Your task to perform on an android device: turn off improve location accuracy Image 0: 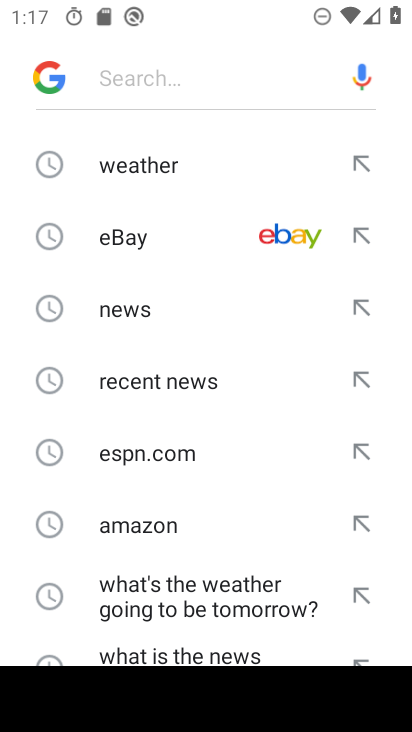
Step 0: press home button
Your task to perform on an android device: turn off improve location accuracy Image 1: 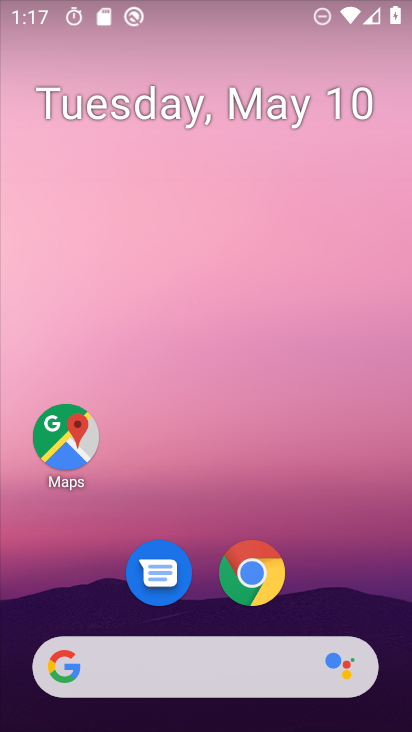
Step 1: drag from (357, 549) to (176, 16)
Your task to perform on an android device: turn off improve location accuracy Image 2: 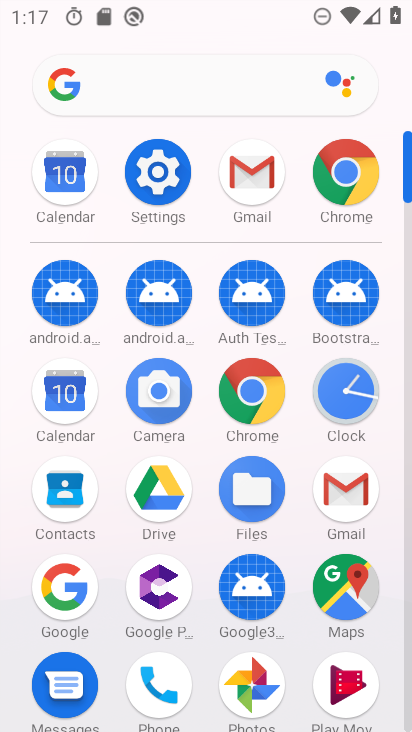
Step 2: click (155, 144)
Your task to perform on an android device: turn off improve location accuracy Image 3: 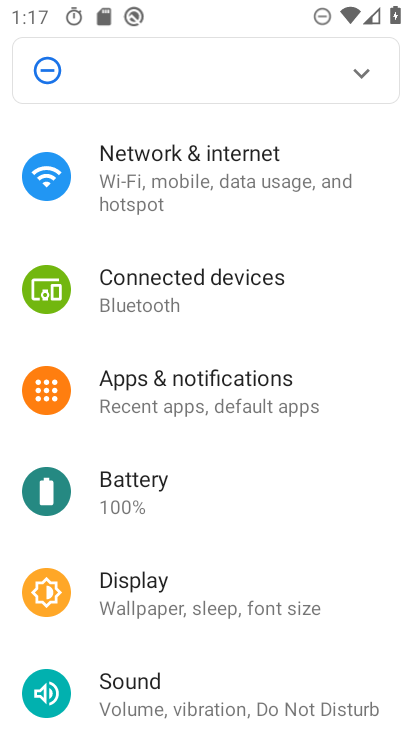
Step 3: drag from (238, 637) to (249, 246)
Your task to perform on an android device: turn off improve location accuracy Image 4: 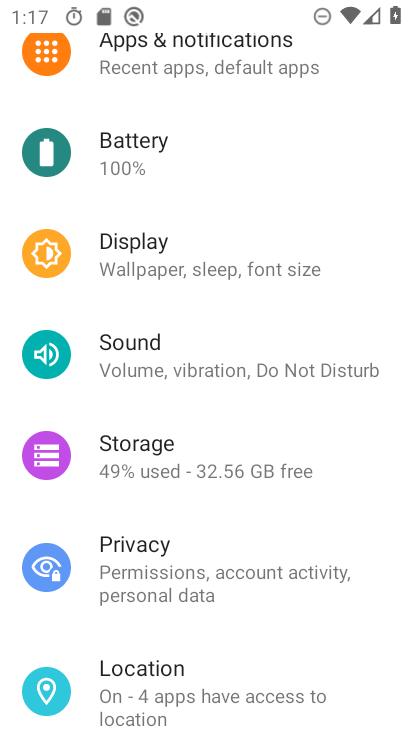
Step 4: click (188, 675)
Your task to perform on an android device: turn off improve location accuracy Image 5: 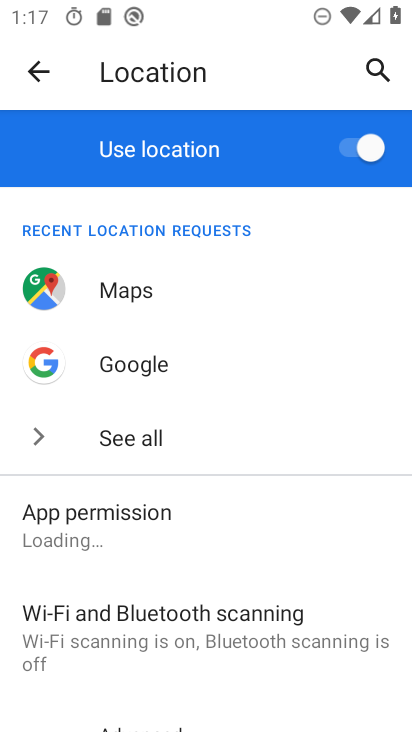
Step 5: drag from (147, 594) to (197, 194)
Your task to perform on an android device: turn off improve location accuracy Image 6: 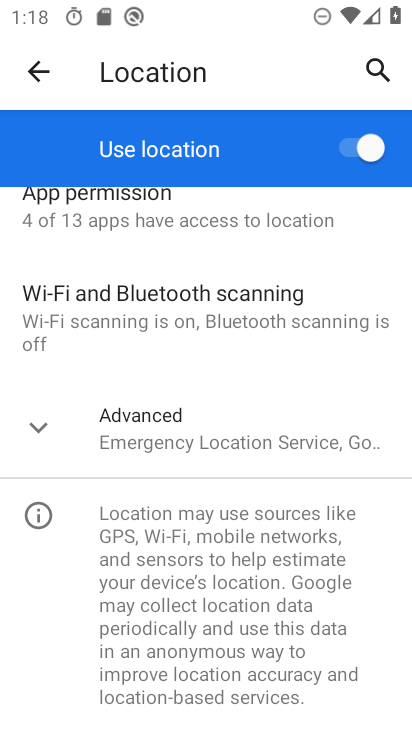
Step 6: click (216, 444)
Your task to perform on an android device: turn off improve location accuracy Image 7: 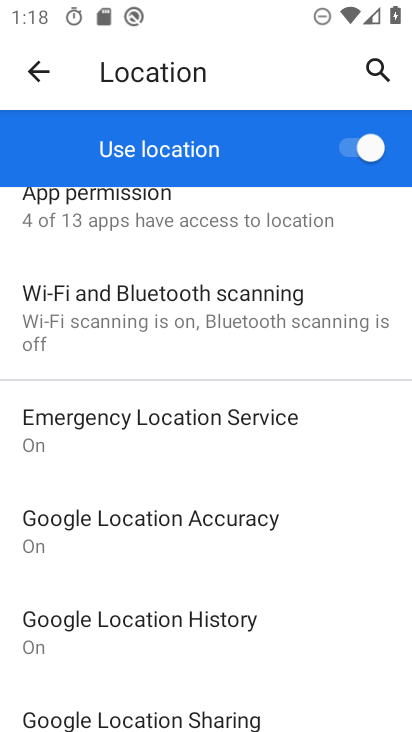
Step 7: click (202, 557)
Your task to perform on an android device: turn off improve location accuracy Image 8: 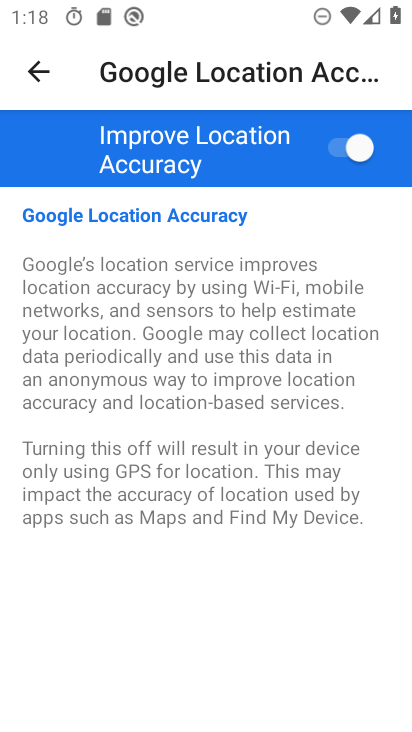
Step 8: click (340, 134)
Your task to perform on an android device: turn off improve location accuracy Image 9: 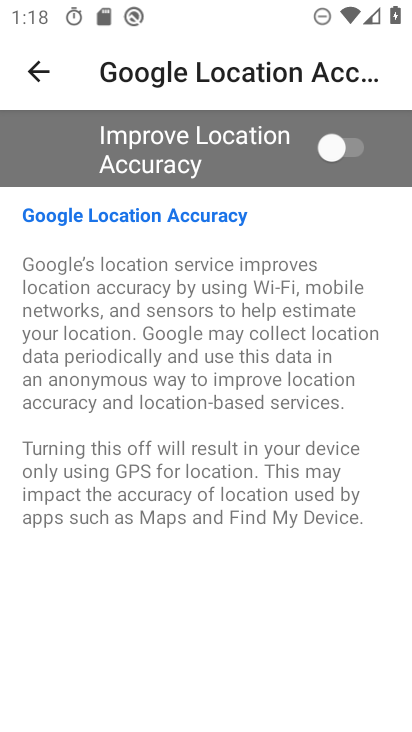
Step 9: task complete